Your task to perform on an android device: Open eBay Image 0: 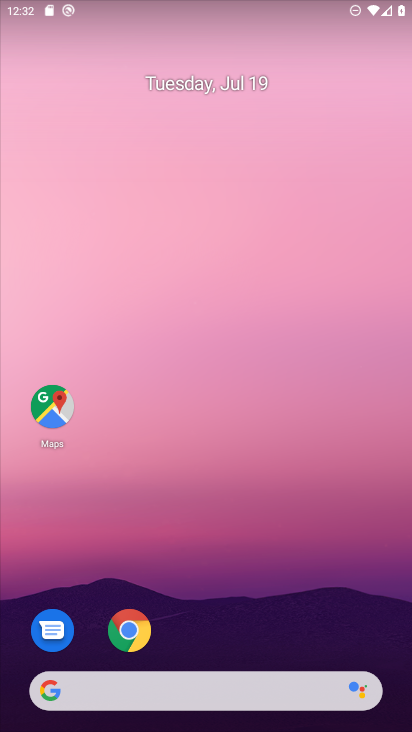
Step 0: press home button
Your task to perform on an android device: Open eBay Image 1: 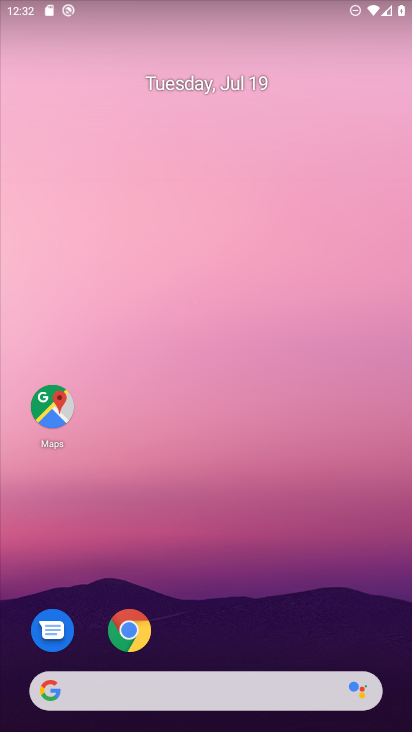
Step 1: click (131, 632)
Your task to perform on an android device: Open eBay Image 2: 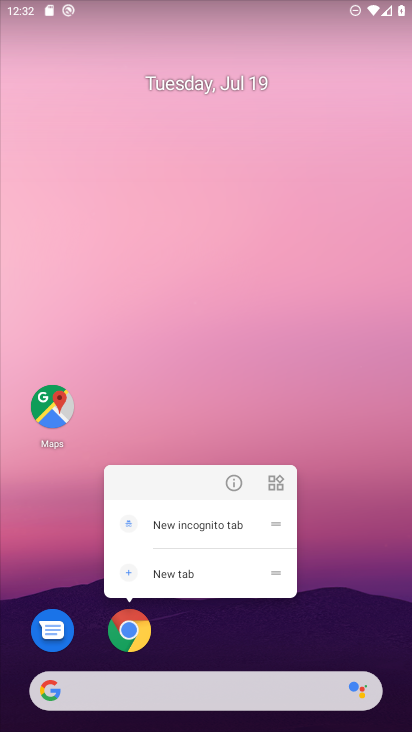
Step 2: click (134, 618)
Your task to perform on an android device: Open eBay Image 3: 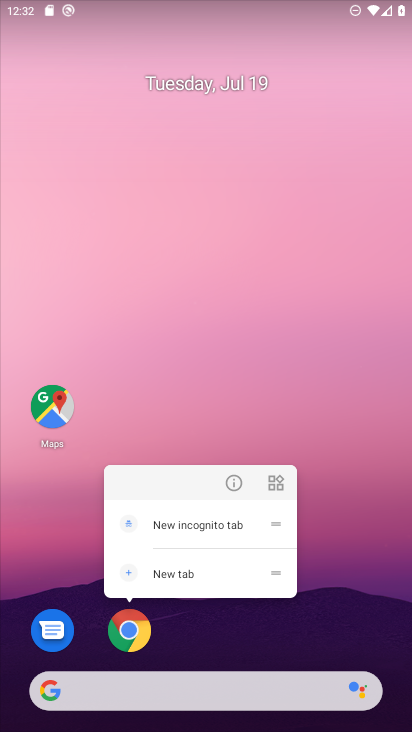
Step 3: click (127, 631)
Your task to perform on an android device: Open eBay Image 4: 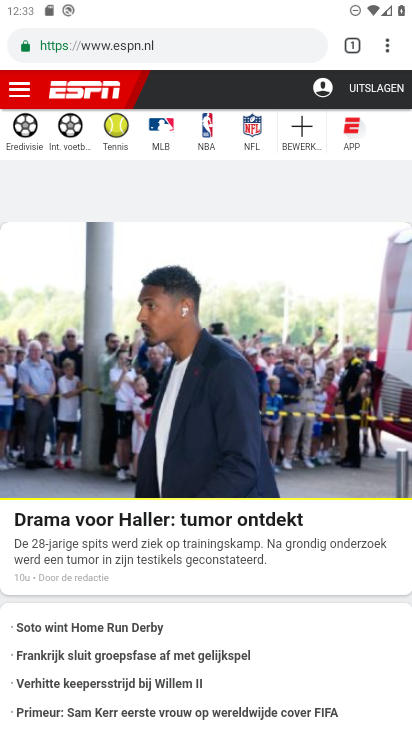
Step 4: drag from (391, 41) to (316, 89)
Your task to perform on an android device: Open eBay Image 5: 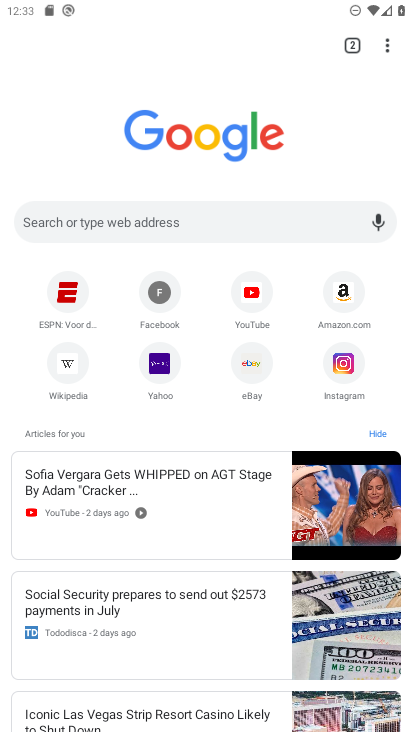
Step 5: click (243, 358)
Your task to perform on an android device: Open eBay Image 6: 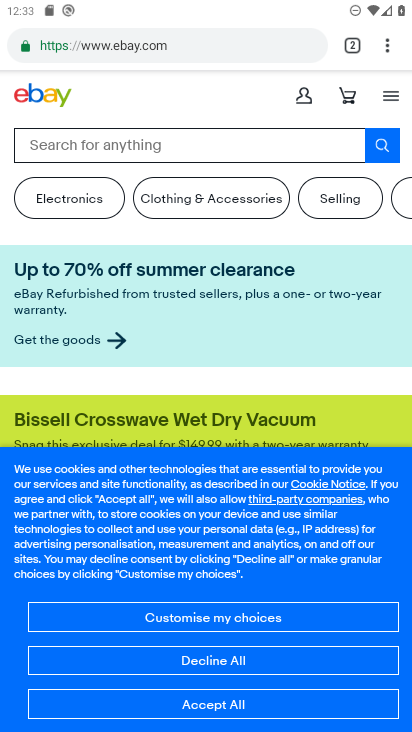
Step 6: click (247, 702)
Your task to perform on an android device: Open eBay Image 7: 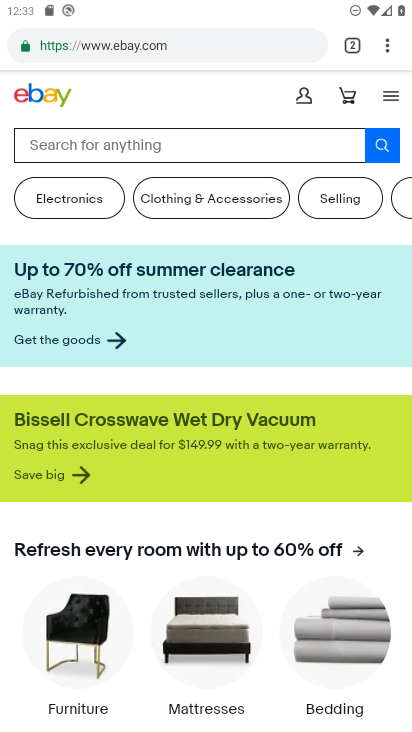
Step 7: task complete